Your task to perform on an android device: Turn off the flashlight Image 0: 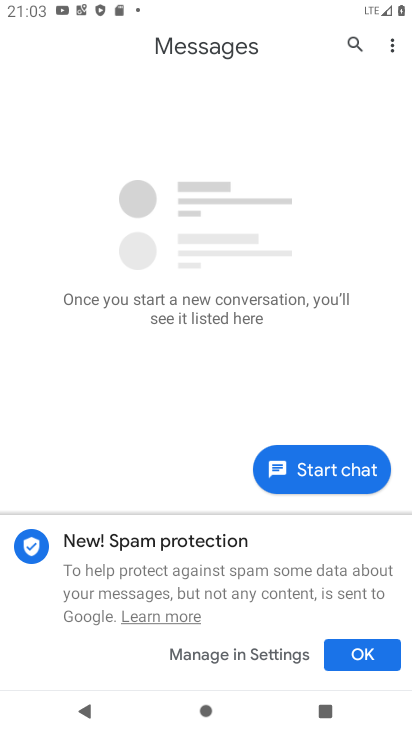
Step 0: press home button
Your task to perform on an android device: Turn off the flashlight Image 1: 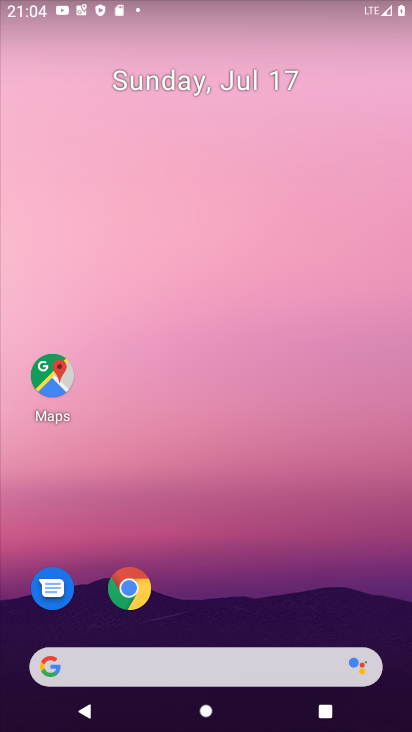
Step 1: task complete